Your task to perform on an android device: change alarm snooze length Image 0: 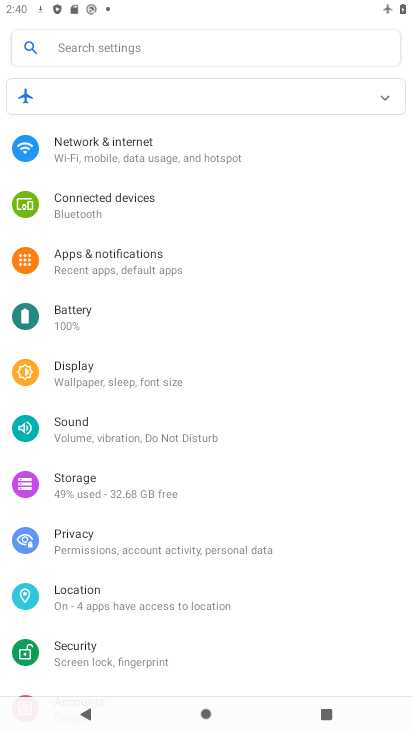
Step 0: press home button
Your task to perform on an android device: change alarm snooze length Image 1: 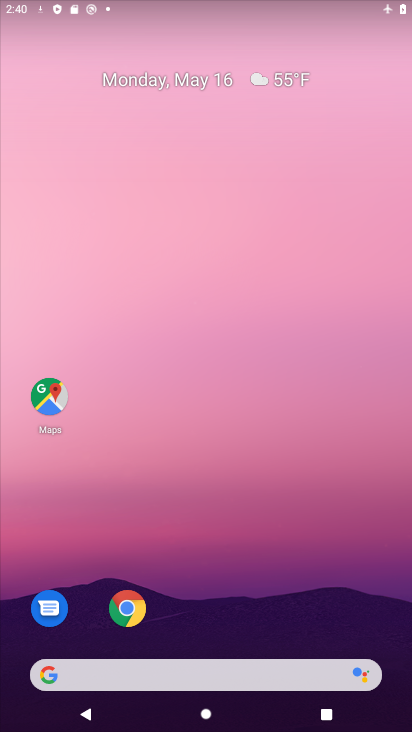
Step 1: drag from (189, 629) to (179, 216)
Your task to perform on an android device: change alarm snooze length Image 2: 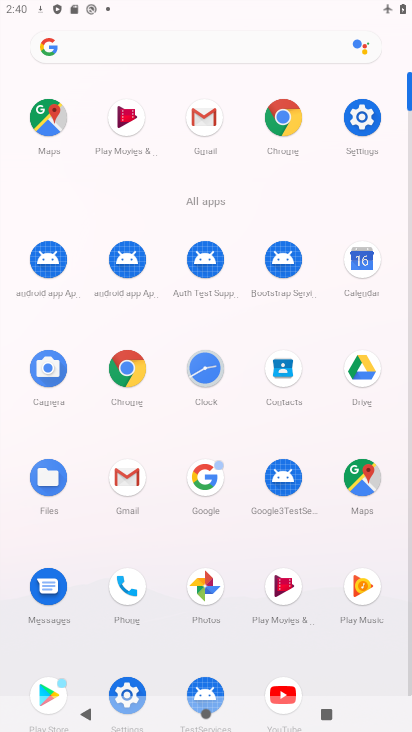
Step 2: click (198, 371)
Your task to perform on an android device: change alarm snooze length Image 3: 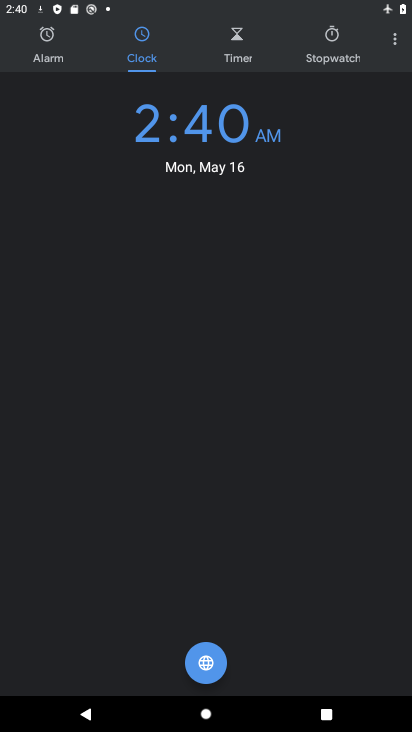
Step 3: click (384, 53)
Your task to perform on an android device: change alarm snooze length Image 4: 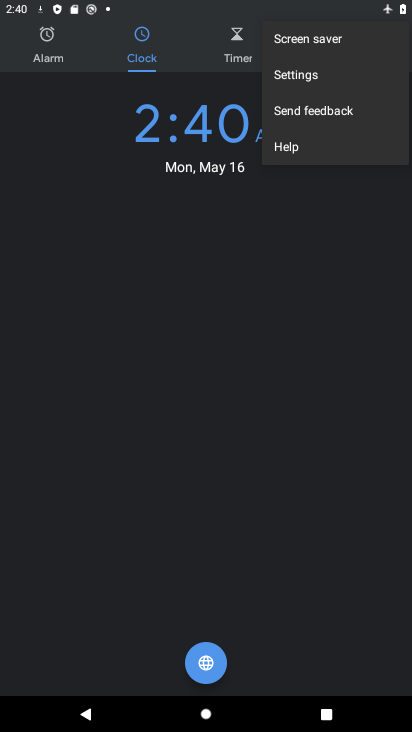
Step 4: click (322, 76)
Your task to perform on an android device: change alarm snooze length Image 5: 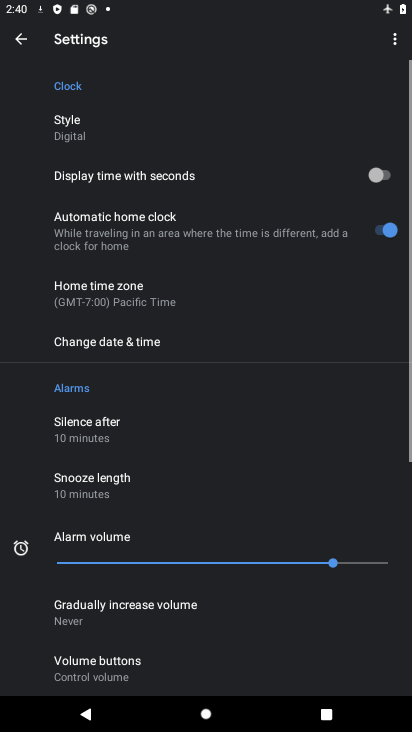
Step 5: drag from (226, 502) to (201, 261)
Your task to perform on an android device: change alarm snooze length Image 6: 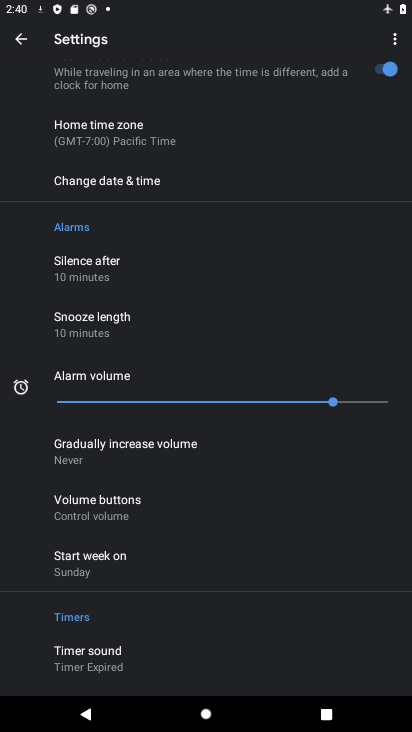
Step 6: click (130, 330)
Your task to perform on an android device: change alarm snooze length Image 7: 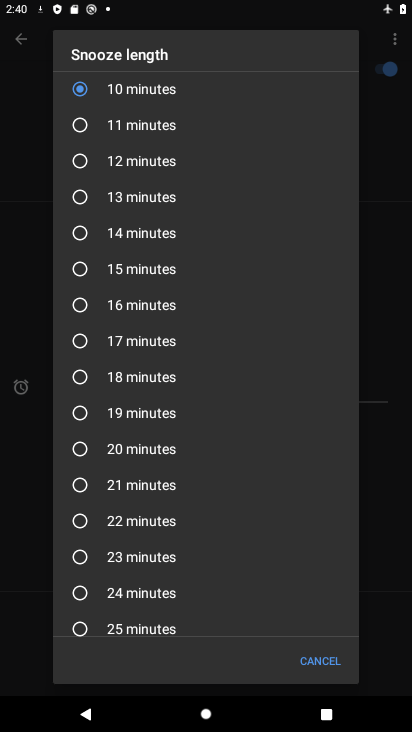
Step 7: click (167, 357)
Your task to perform on an android device: change alarm snooze length Image 8: 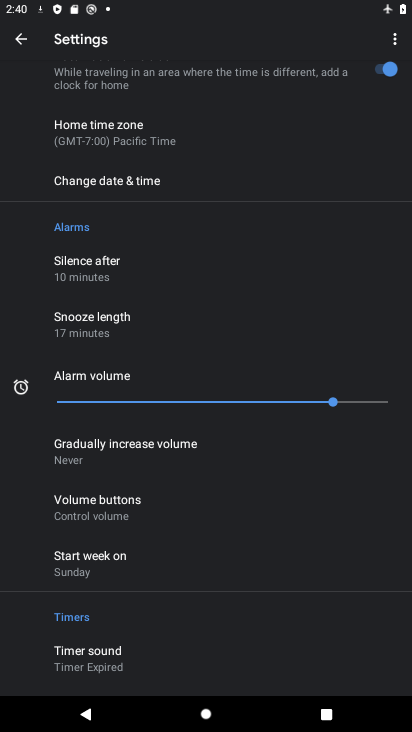
Step 8: task complete